Your task to perform on an android device: Open the Play Movies app and select the watchlist tab. Image 0: 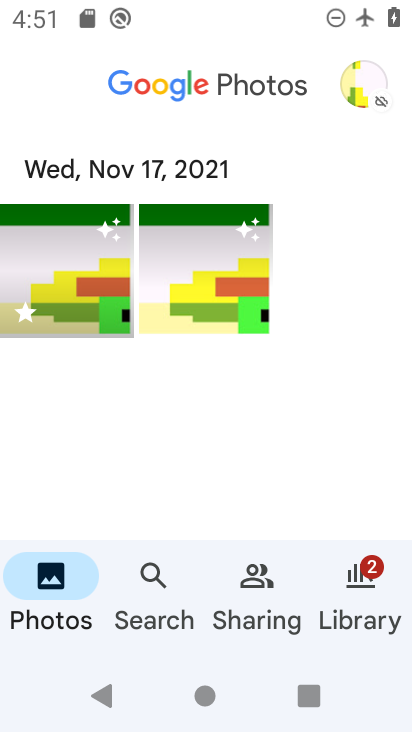
Step 0: press home button
Your task to perform on an android device: Open the Play Movies app and select the watchlist tab. Image 1: 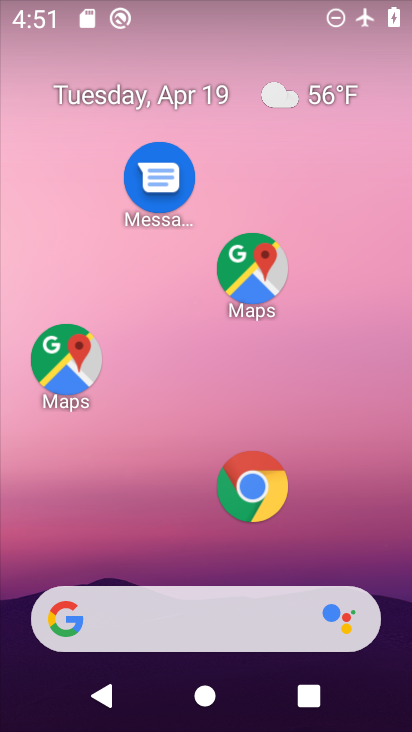
Step 1: drag from (279, 528) to (306, 125)
Your task to perform on an android device: Open the Play Movies app and select the watchlist tab. Image 2: 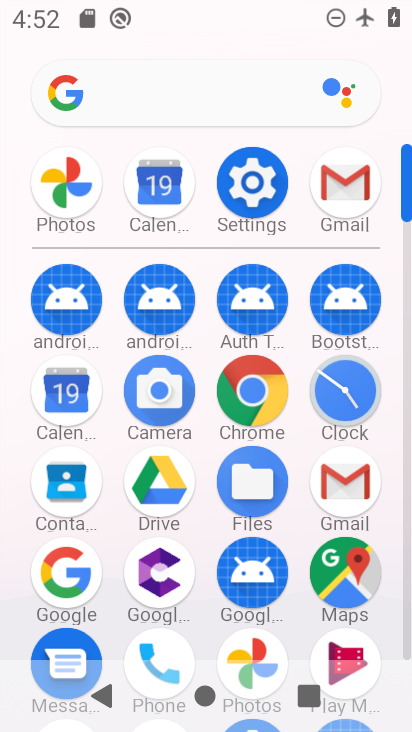
Step 2: drag from (298, 529) to (291, 116)
Your task to perform on an android device: Open the Play Movies app and select the watchlist tab. Image 3: 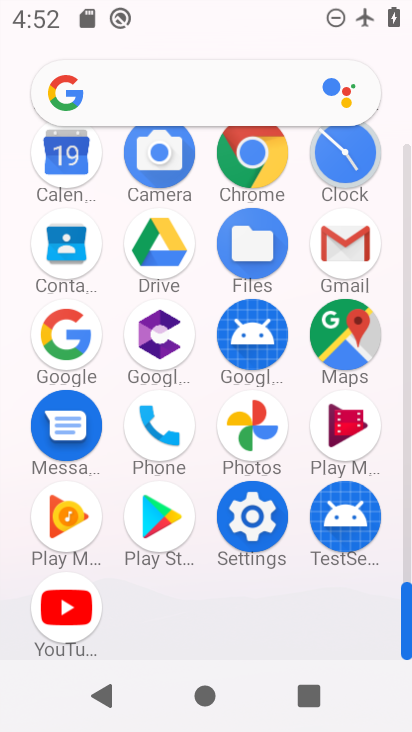
Step 3: click (344, 435)
Your task to perform on an android device: Open the Play Movies app and select the watchlist tab. Image 4: 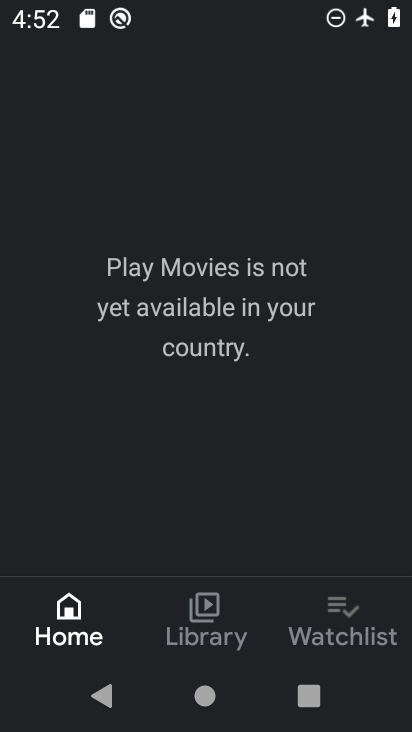
Step 4: click (337, 614)
Your task to perform on an android device: Open the Play Movies app and select the watchlist tab. Image 5: 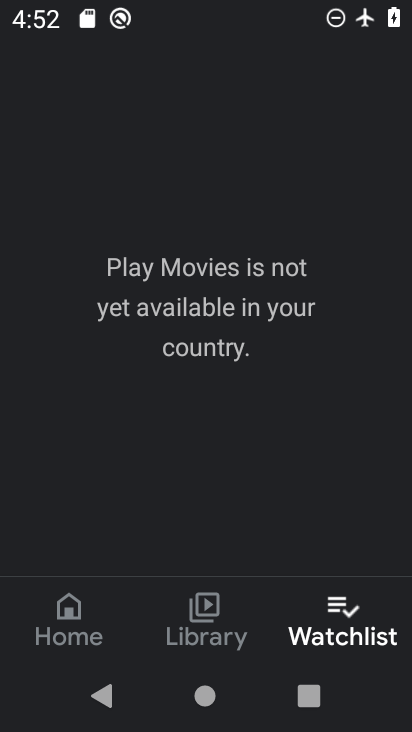
Step 5: task complete